Your task to perform on an android device: check android version Image 0: 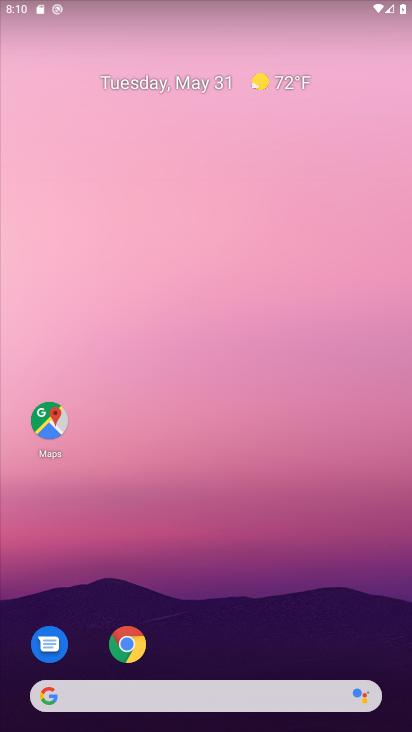
Step 0: press home button
Your task to perform on an android device: check android version Image 1: 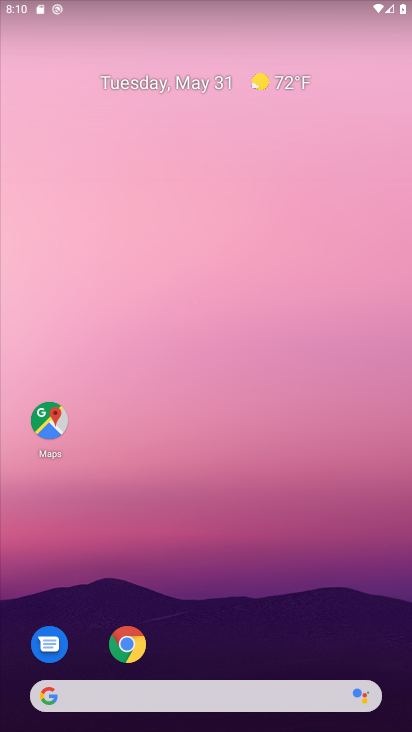
Step 1: drag from (216, 644) to (206, 143)
Your task to perform on an android device: check android version Image 2: 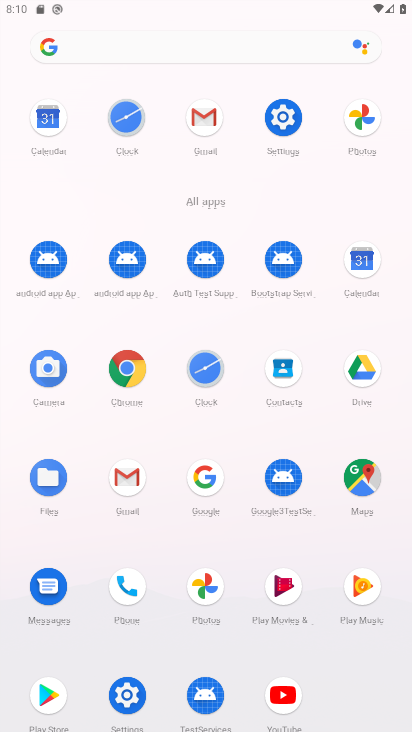
Step 2: click (123, 695)
Your task to perform on an android device: check android version Image 3: 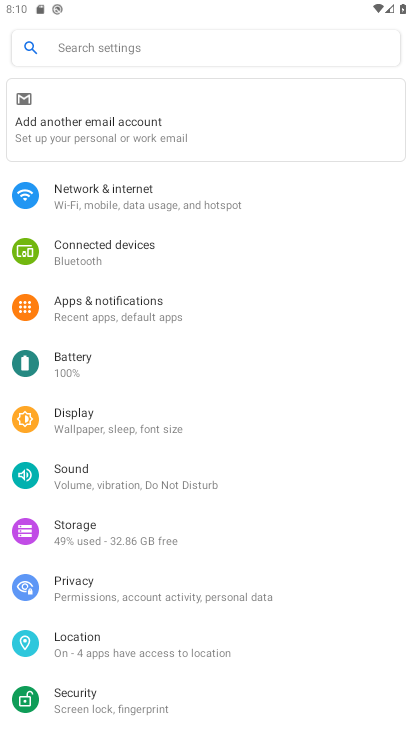
Step 3: drag from (167, 664) to (168, 181)
Your task to perform on an android device: check android version Image 4: 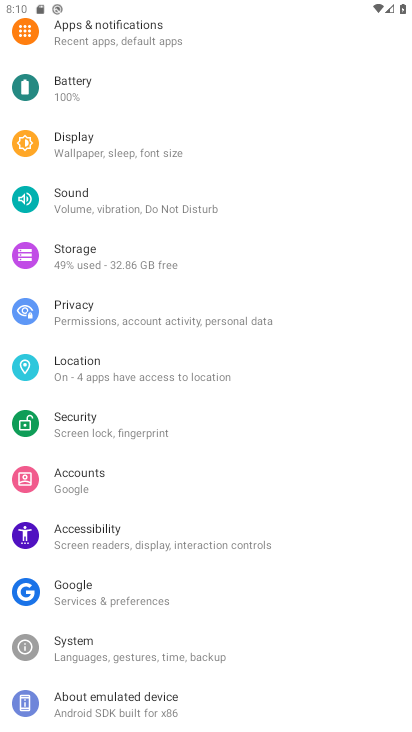
Step 4: click (191, 696)
Your task to perform on an android device: check android version Image 5: 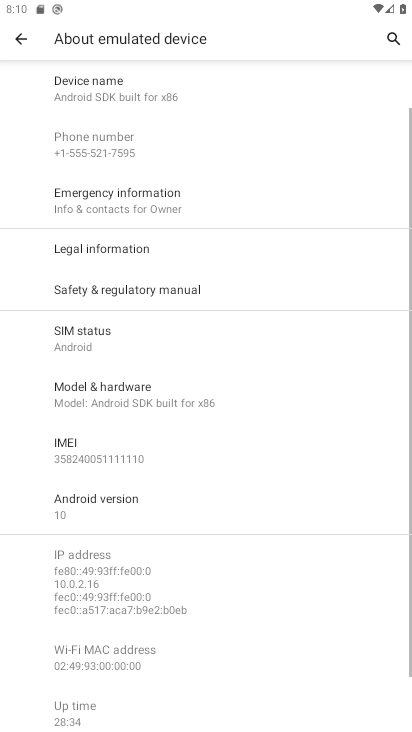
Step 5: click (126, 509)
Your task to perform on an android device: check android version Image 6: 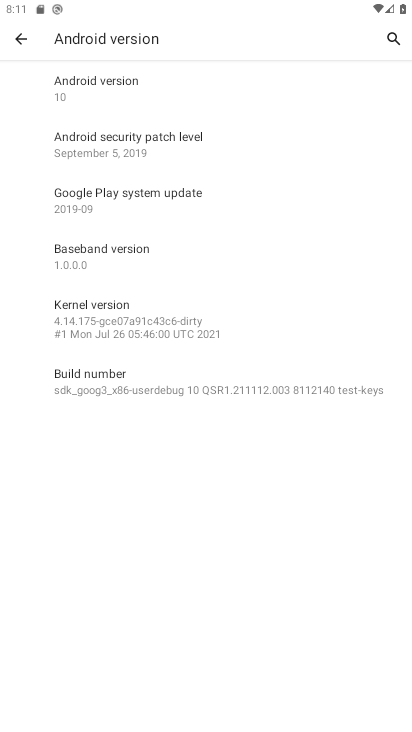
Step 6: task complete